Your task to perform on an android device: refresh tabs in the chrome app Image 0: 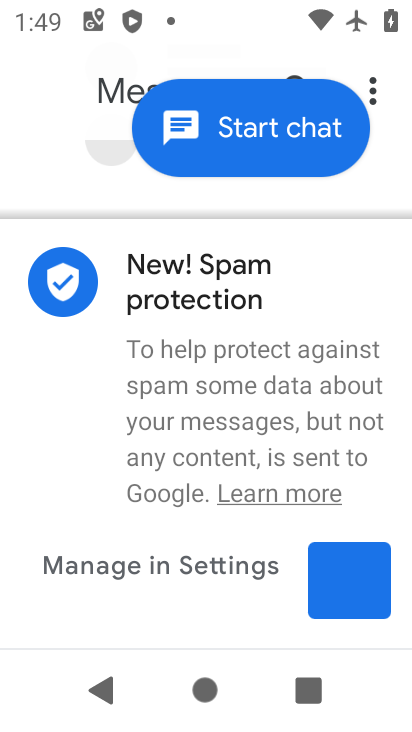
Step 0: press home button
Your task to perform on an android device: refresh tabs in the chrome app Image 1: 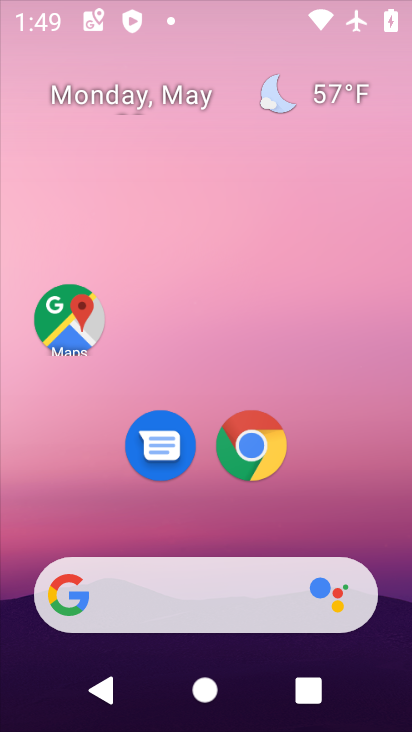
Step 1: click (241, 448)
Your task to perform on an android device: refresh tabs in the chrome app Image 2: 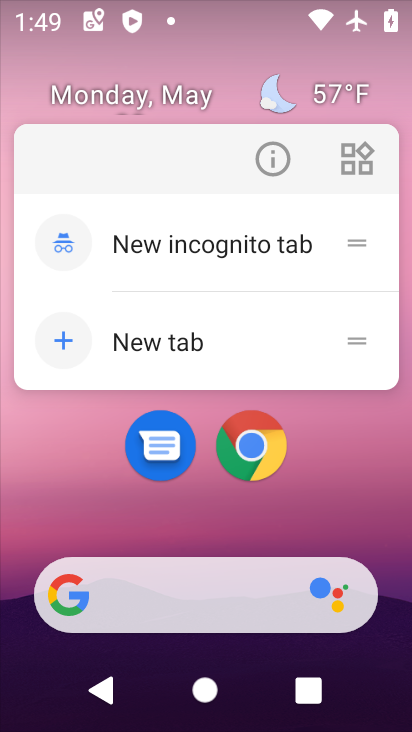
Step 2: click (251, 445)
Your task to perform on an android device: refresh tabs in the chrome app Image 3: 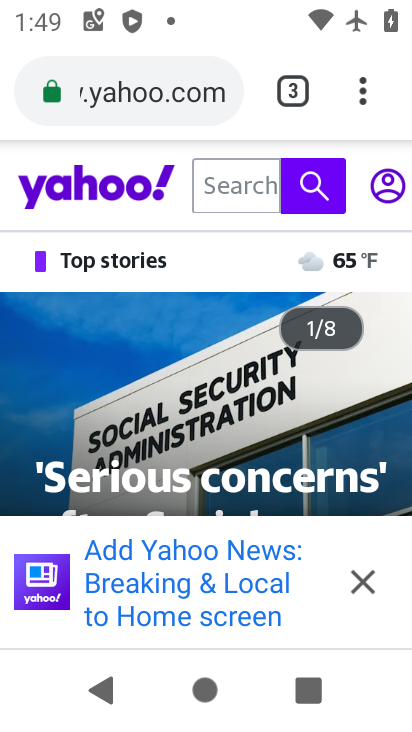
Step 3: click (359, 88)
Your task to perform on an android device: refresh tabs in the chrome app Image 4: 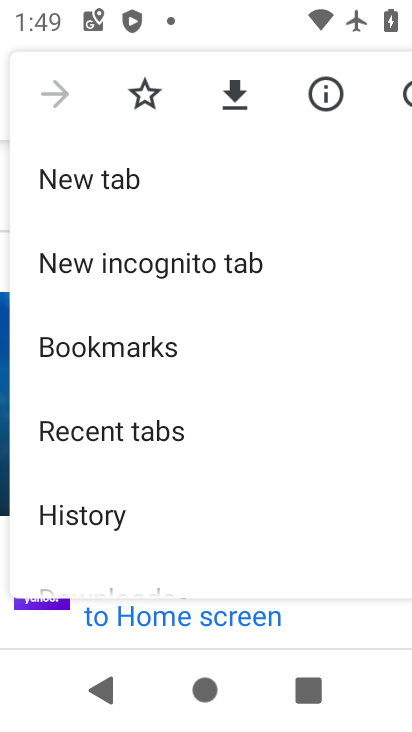
Step 4: click (408, 95)
Your task to perform on an android device: refresh tabs in the chrome app Image 5: 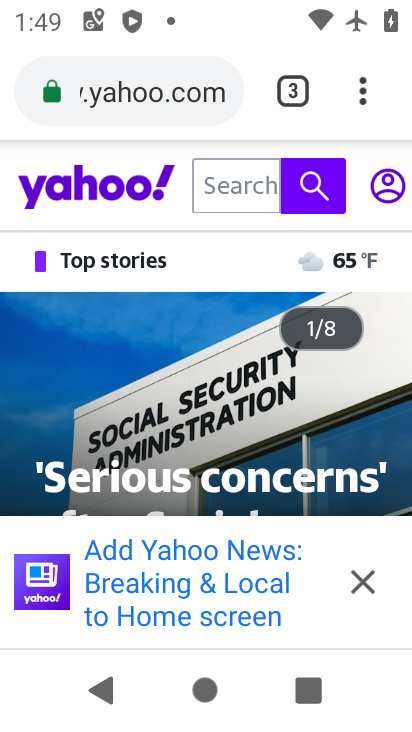
Step 5: task complete